Your task to perform on an android device: Go to internet settings Image 0: 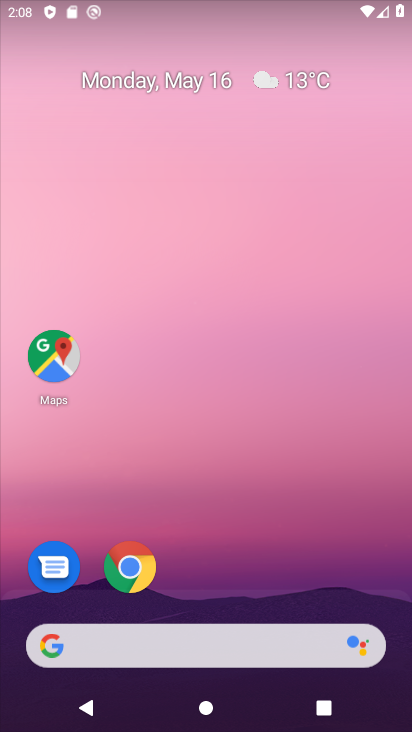
Step 0: drag from (274, 605) to (226, 21)
Your task to perform on an android device: Go to internet settings Image 1: 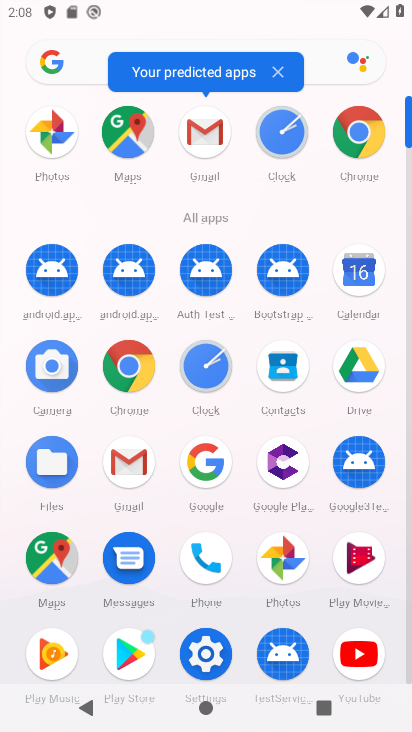
Step 1: click (217, 656)
Your task to perform on an android device: Go to internet settings Image 2: 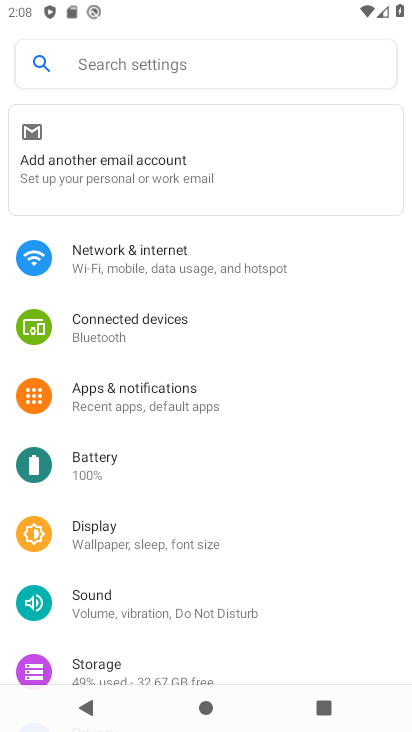
Step 2: drag from (232, 571) to (245, 295)
Your task to perform on an android device: Go to internet settings Image 3: 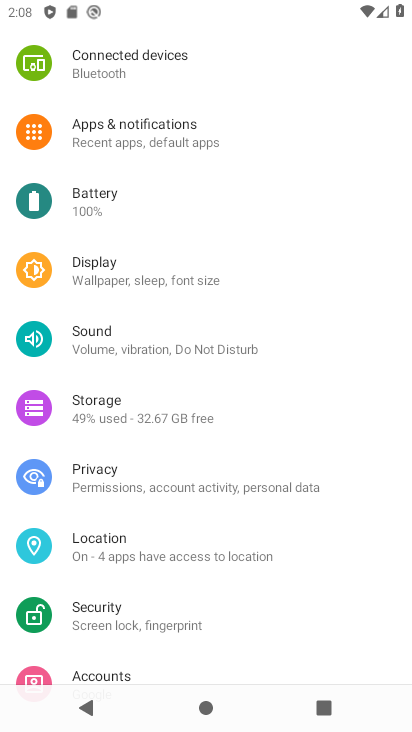
Step 3: drag from (253, 348) to (276, 696)
Your task to perform on an android device: Go to internet settings Image 4: 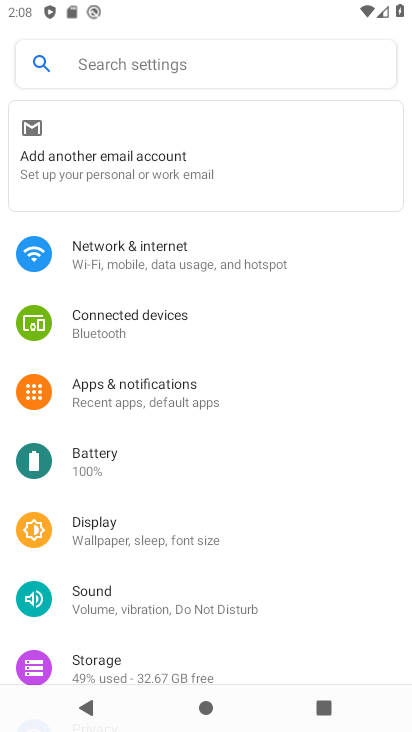
Step 4: click (151, 247)
Your task to perform on an android device: Go to internet settings Image 5: 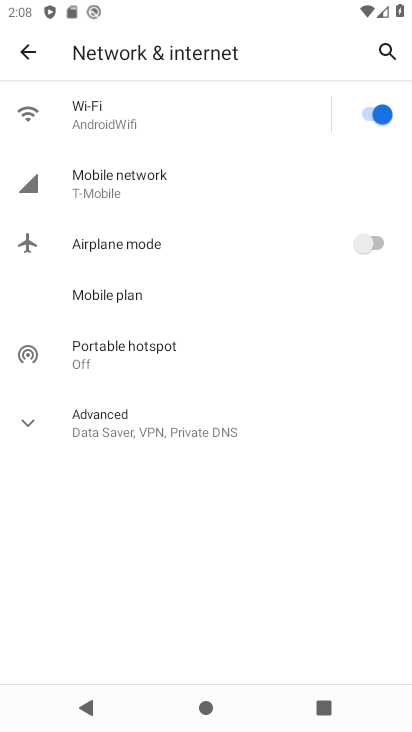
Step 5: task complete